Your task to perform on an android device: Go to Maps Image 0: 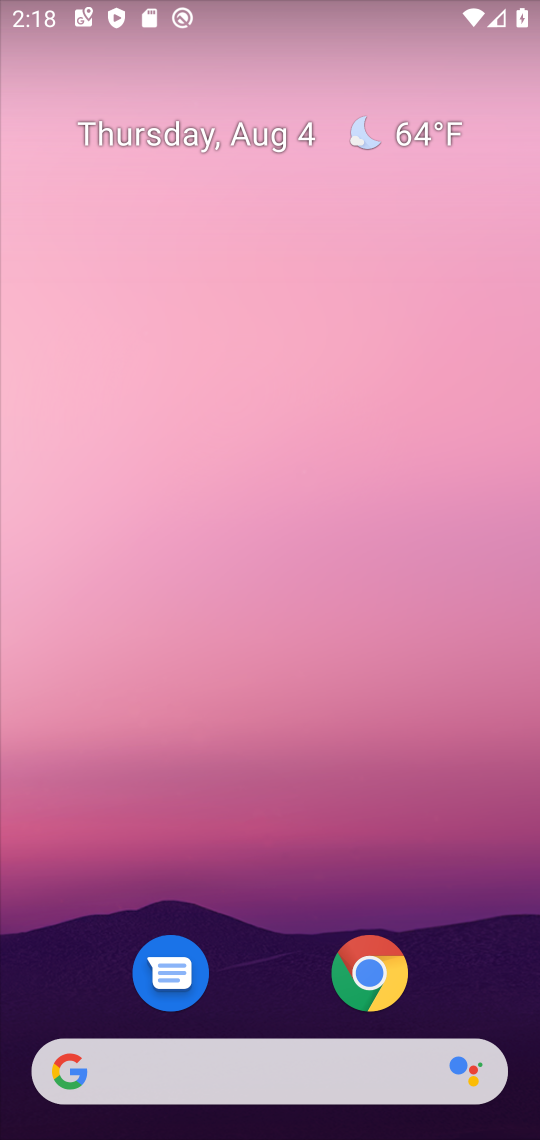
Step 0: drag from (270, 985) to (204, 31)
Your task to perform on an android device: Go to Maps Image 1: 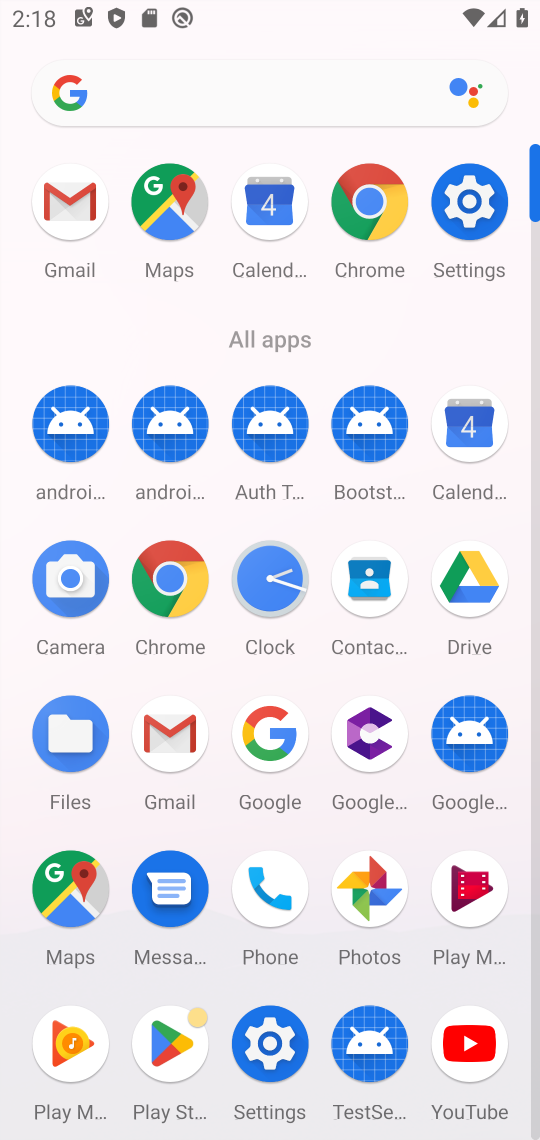
Step 1: click (92, 869)
Your task to perform on an android device: Go to Maps Image 2: 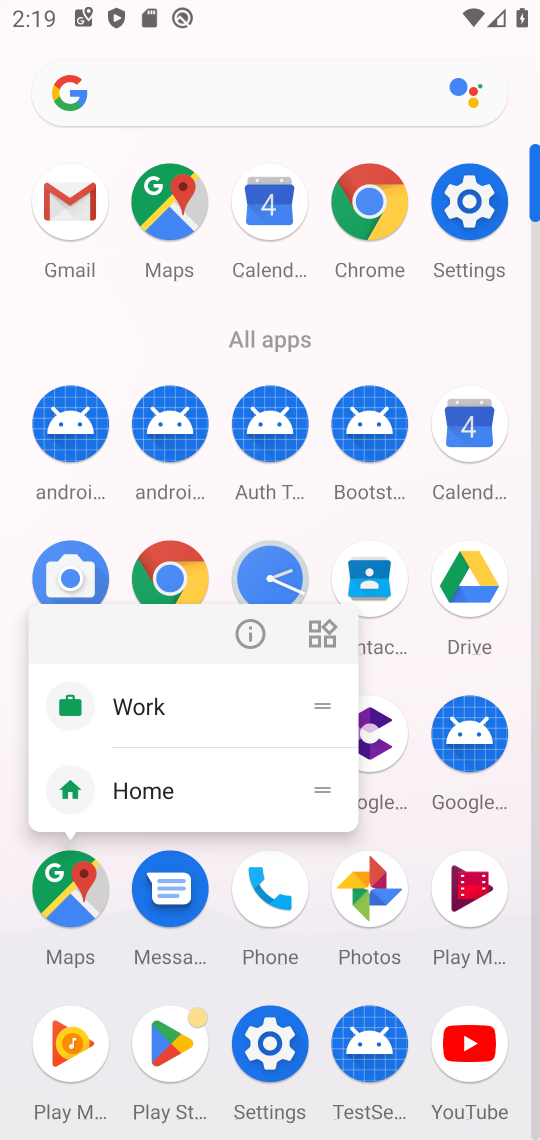
Step 2: click (66, 896)
Your task to perform on an android device: Go to Maps Image 3: 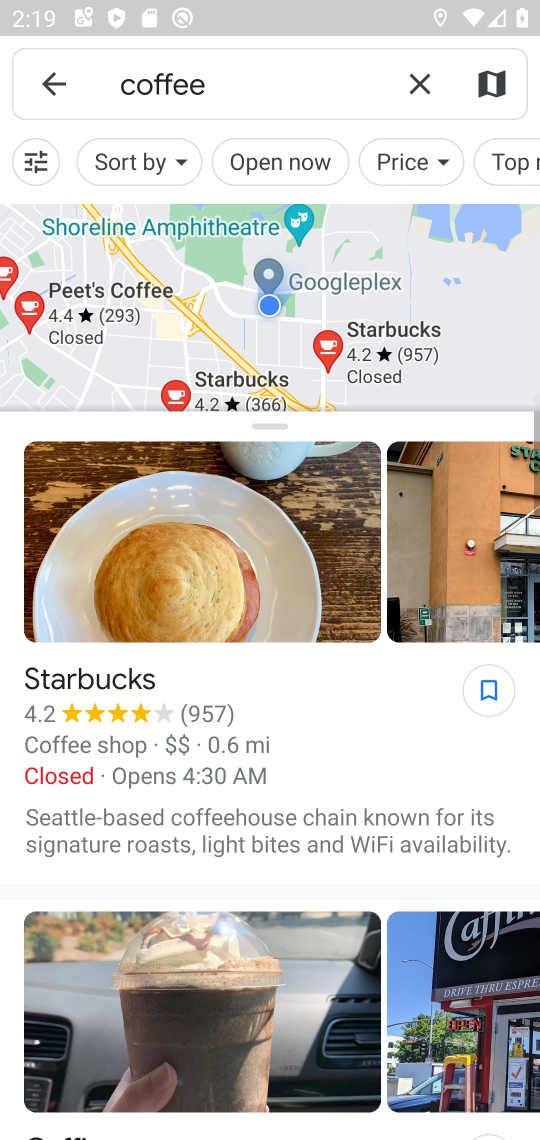
Step 3: task complete